Your task to perform on an android device: move a message to another label in the gmail app Image 0: 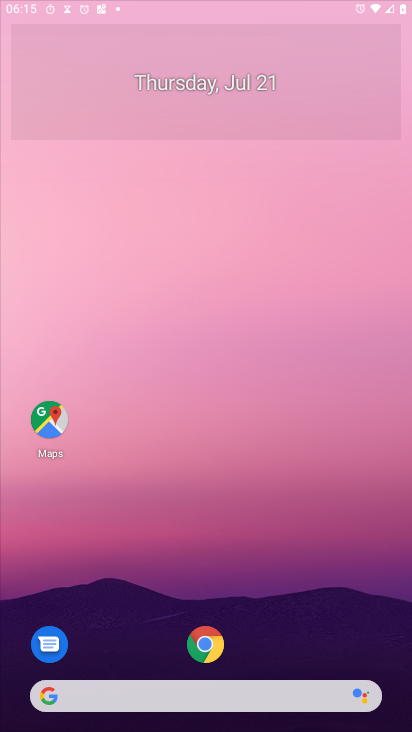
Step 0: press home button
Your task to perform on an android device: move a message to another label in the gmail app Image 1: 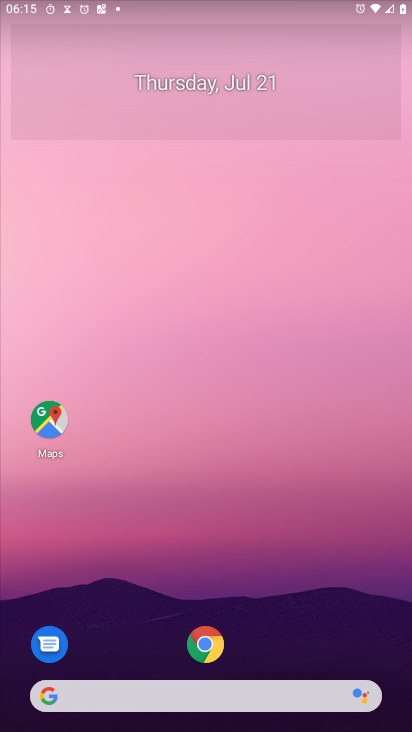
Step 1: press home button
Your task to perform on an android device: move a message to another label in the gmail app Image 2: 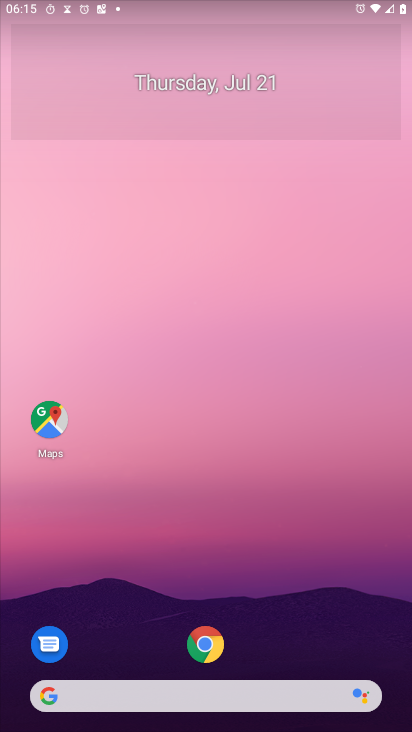
Step 2: drag from (311, 641) to (293, 67)
Your task to perform on an android device: move a message to another label in the gmail app Image 3: 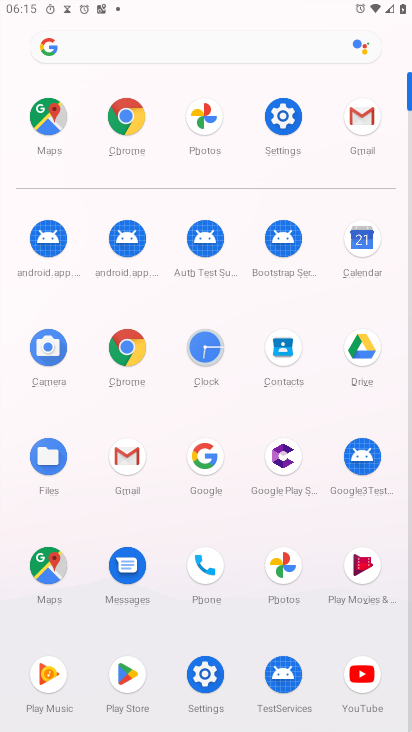
Step 3: click (362, 108)
Your task to perform on an android device: move a message to another label in the gmail app Image 4: 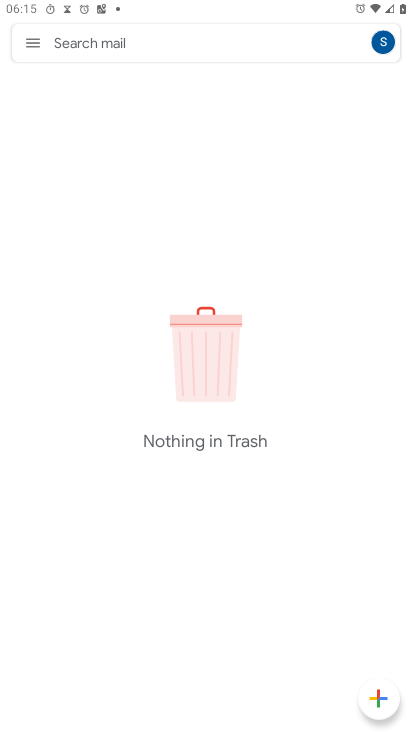
Step 4: click (30, 37)
Your task to perform on an android device: move a message to another label in the gmail app Image 5: 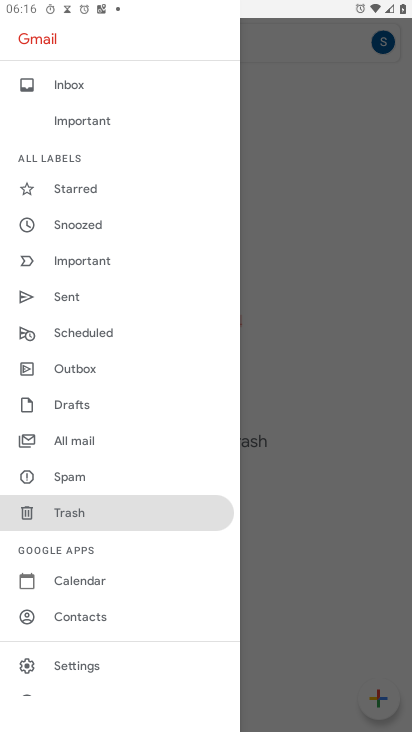
Step 5: click (62, 445)
Your task to perform on an android device: move a message to another label in the gmail app Image 6: 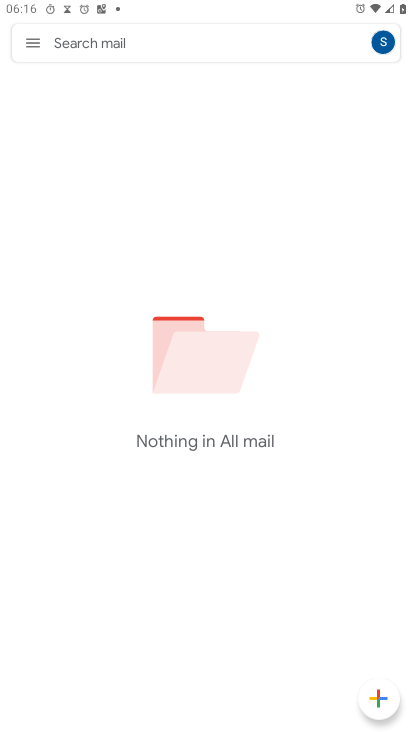
Step 6: task complete